Your task to perform on an android device: Open the stopwatch Image 0: 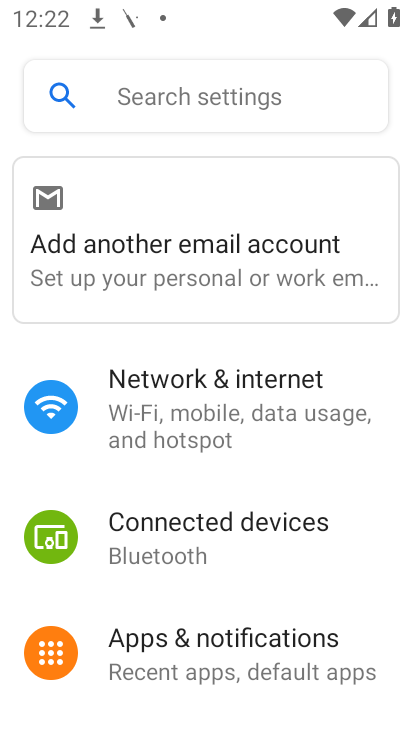
Step 0: press home button
Your task to perform on an android device: Open the stopwatch Image 1: 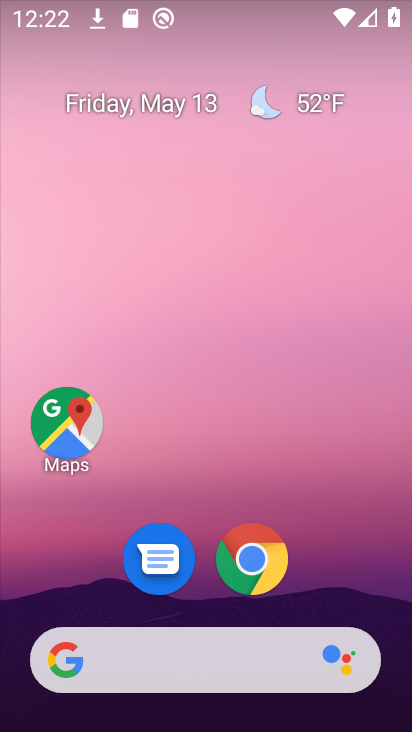
Step 1: drag from (341, 548) to (315, 91)
Your task to perform on an android device: Open the stopwatch Image 2: 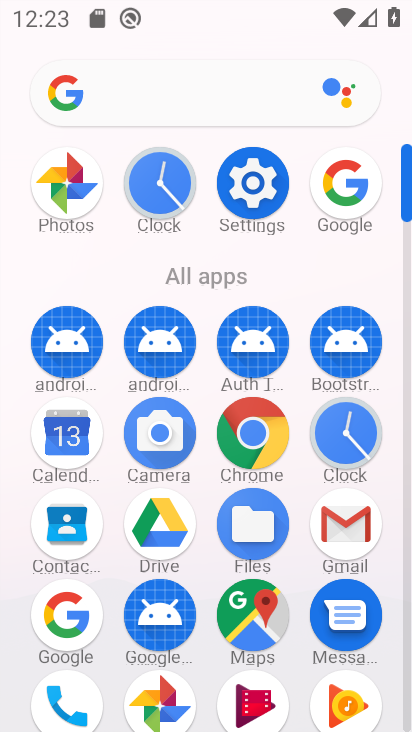
Step 2: click (345, 428)
Your task to perform on an android device: Open the stopwatch Image 3: 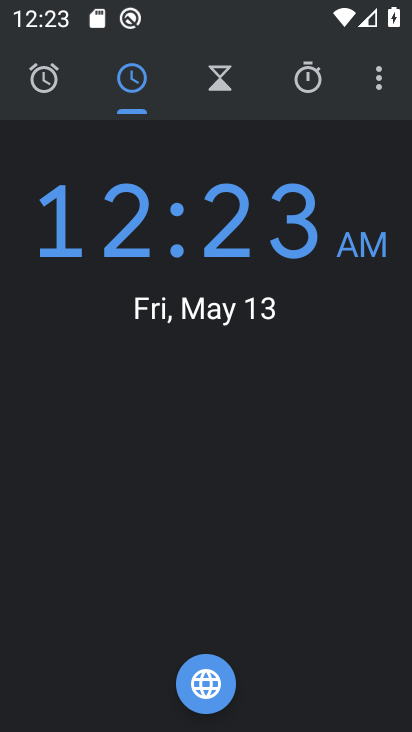
Step 3: click (320, 91)
Your task to perform on an android device: Open the stopwatch Image 4: 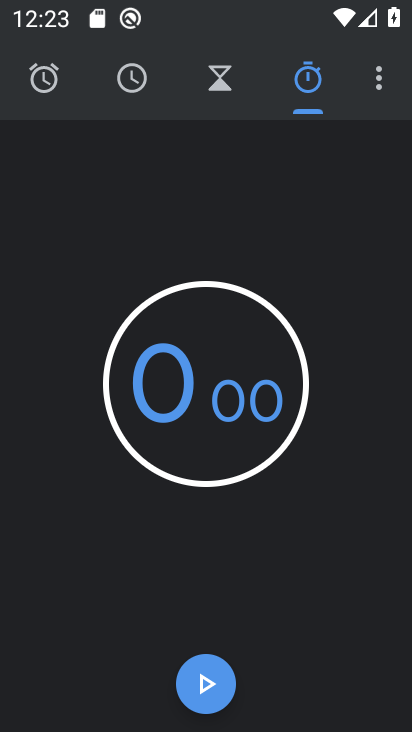
Step 4: click (195, 694)
Your task to perform on an android device: Open the stopwatch Image 5: 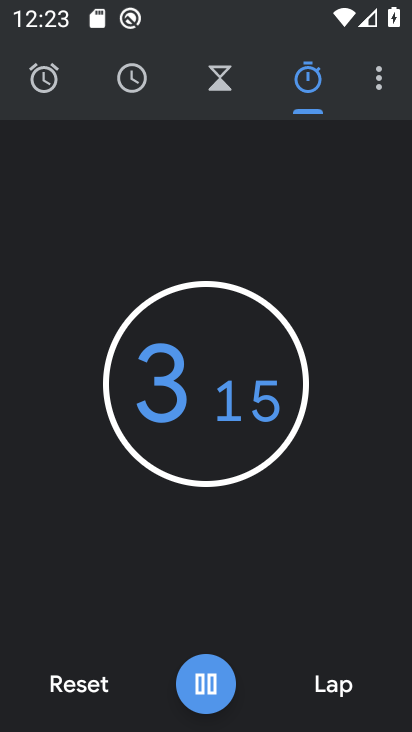
Step 5: click (210, 680)
Your task to perform on an android device: Open the stopwatch Image 6: 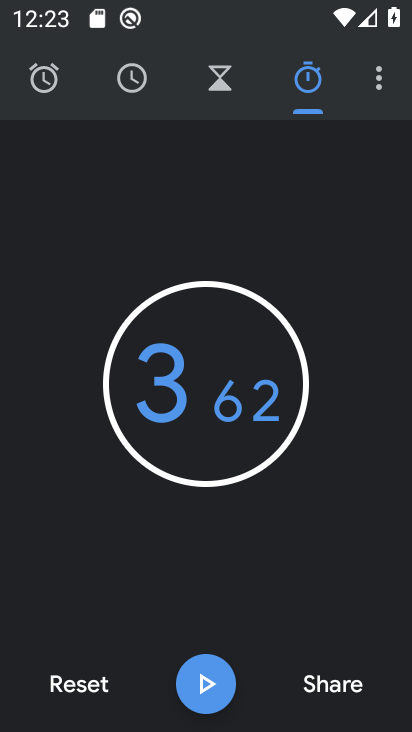
Step 6: task complete